Your task to perform on an android device: allow cookies in the chrome app Image 0: 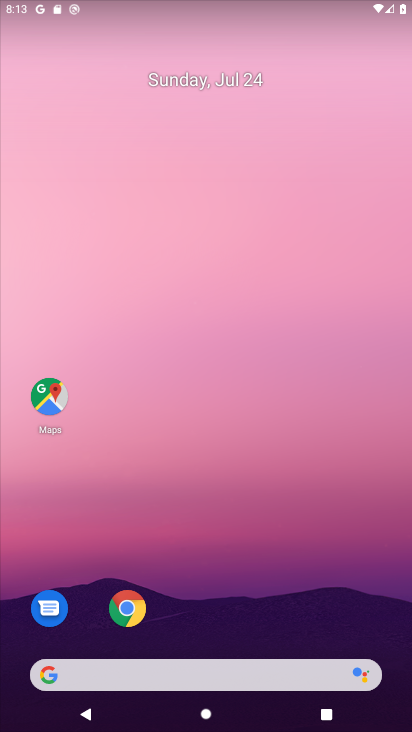
Step 0: click (131, 610)
Your task to perform on an android device: allow cookies in the chrome app Image 1: 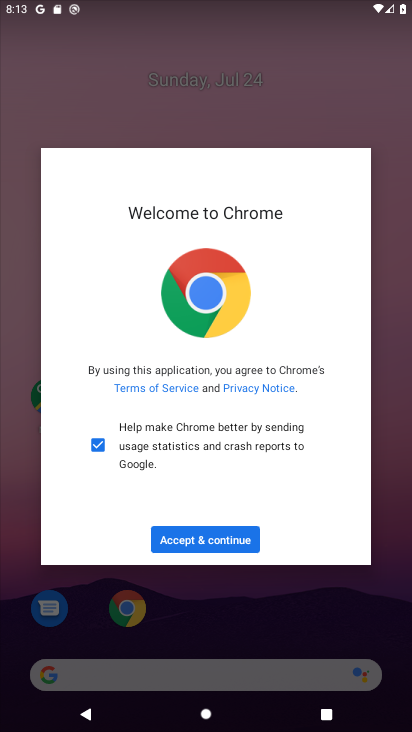
Step 1: click (202, 530)
Your task to perform on an android device: allow cookies in the chrome app Image 2: 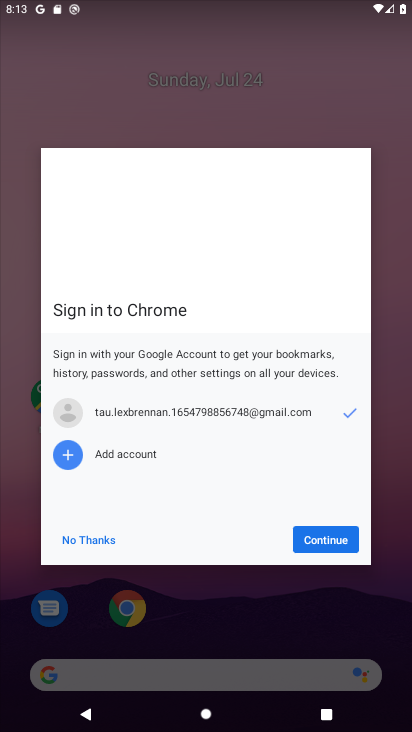
Step 2: click (304, 536)
Your task to perform on an android device: allow cookies in the chrome app Image 3: 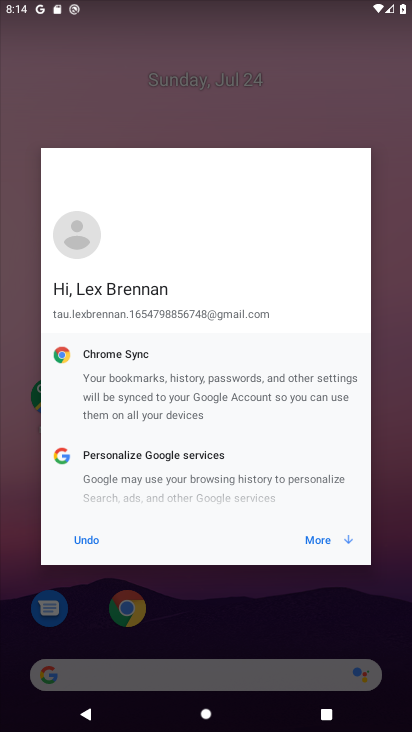
Step 3: click (304, 536)
Your task to perform on an android device: allow cookies in the chrome app Image 4: 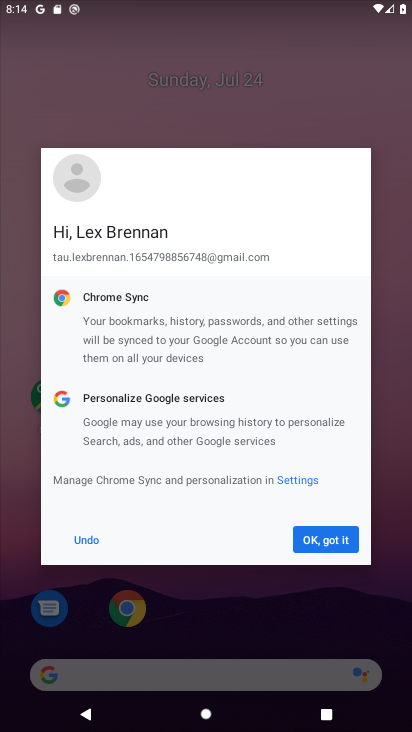
Step 4: click (304, 536)
Your task to perform on an android device: allow cookies in the chrome app Image 5: 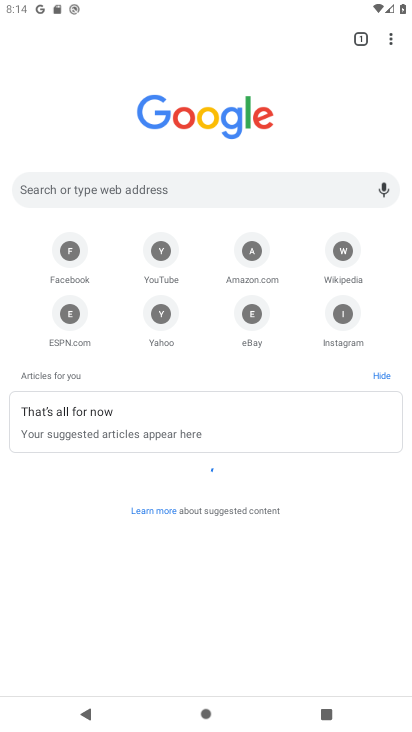
Step 5: click (394, 38)
Your task to perform on an android device: allow cookies in the chrome app Image 6: 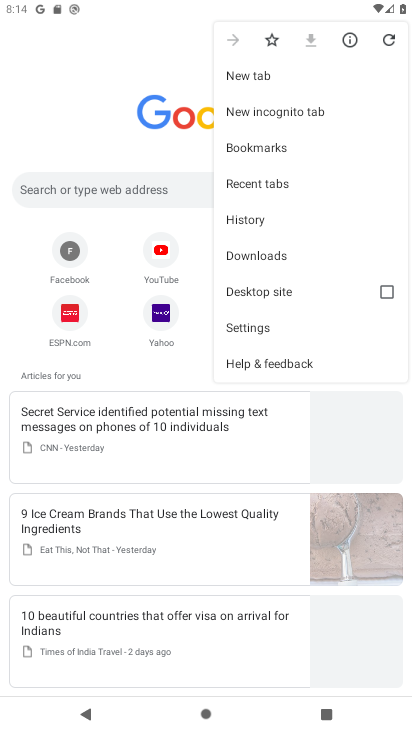
Step 6: click (229, 337)
Your task to perform on an android device: allow cookies in the chrome app Image 7: 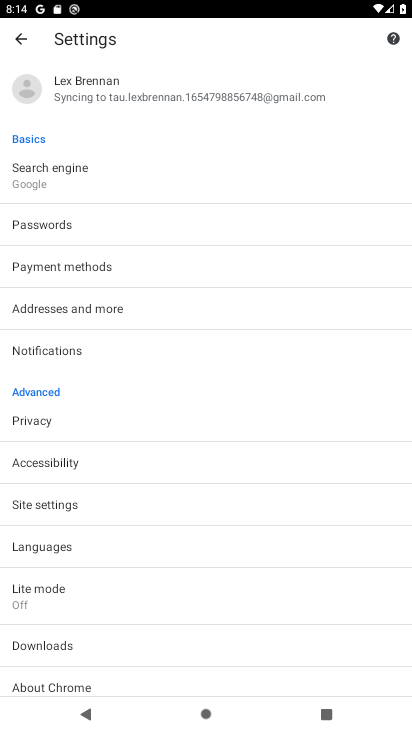
Step 7: click (140, 519)
Your task to perform on an android device: allow cookies in the chrome app Image 8: 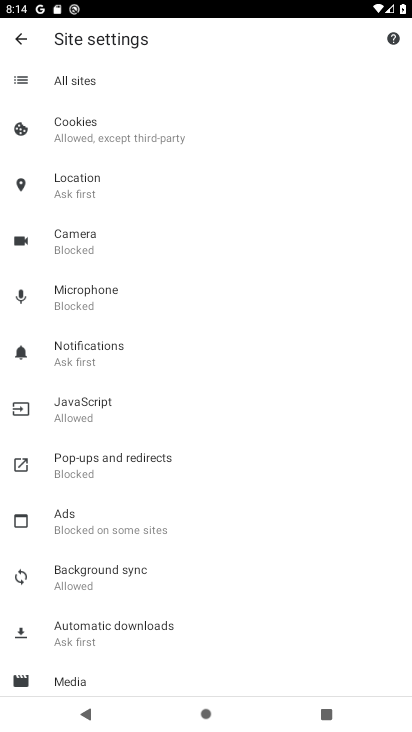
Step 8: click (235, 133)
Your task to perform on an android device: allow cookies in the chrome app Image 9: 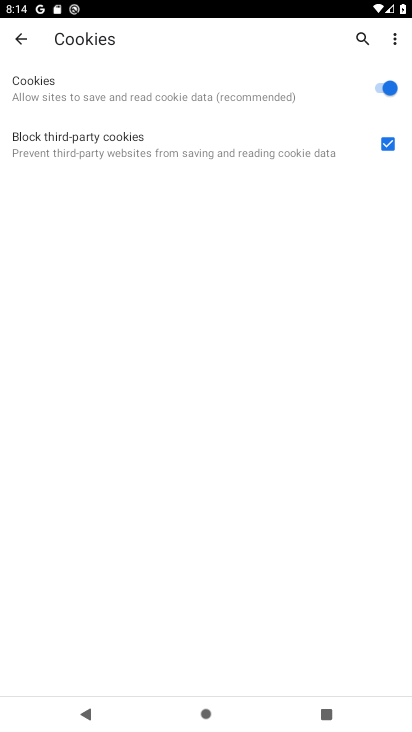
Step 9: task complete